Your task to perform on an android device: change the clock display to analog Image 0: 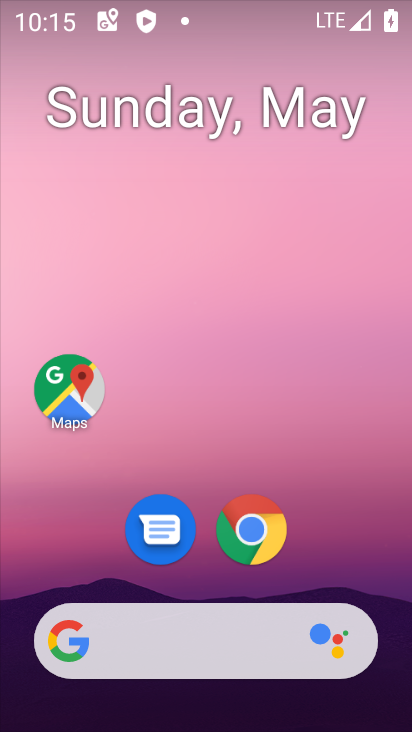
Step 0: drag from (344, 559) to (318, 52)
Your task to perform on an android device: change the clock display to analog Image 1: 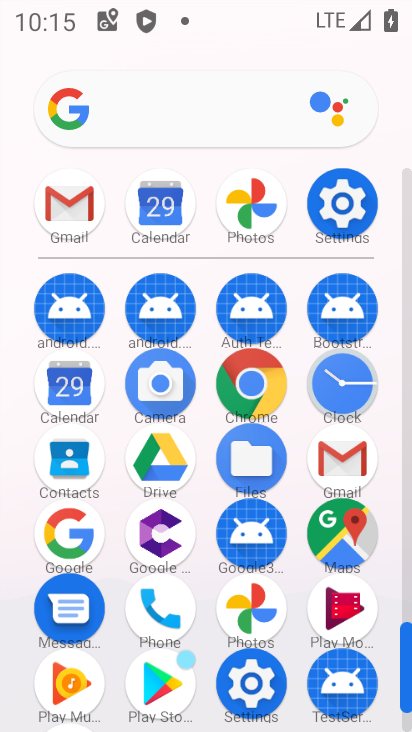
Step 1: click (356, 381)
Your task to perform on an android device: change the clock display to analog Image 2: 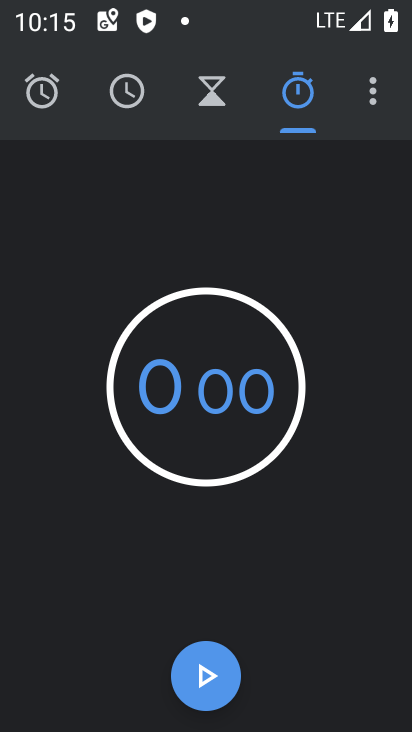
Step 2: click (377, 82)
Your task to perform on an android device: change the clock display to analog Image 3: 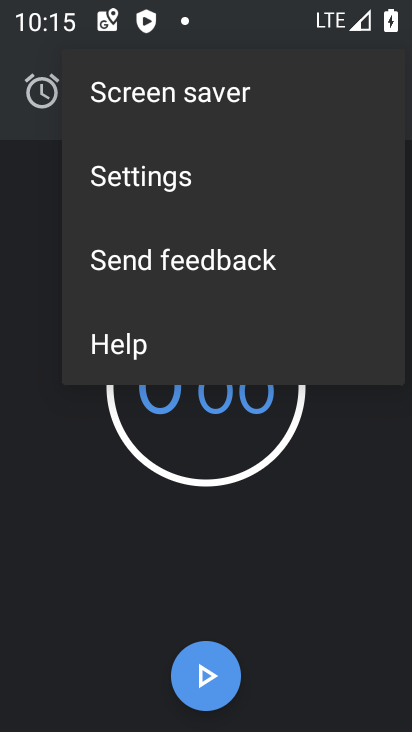
Step 3: click (199, 183)
Your task to perform on an android device: change the clock display to analog Image 4: 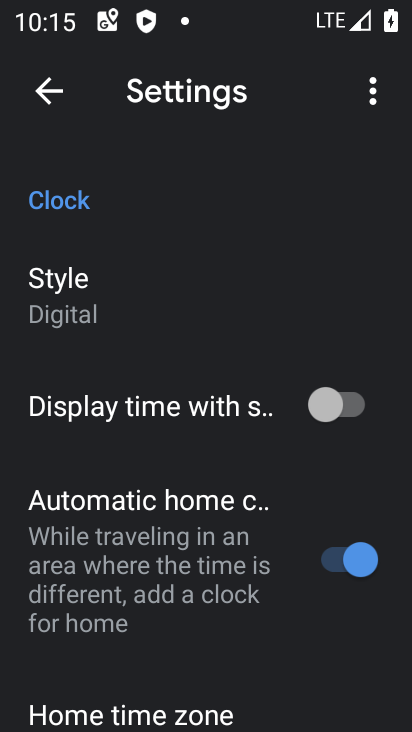
Step 4: click (148, 317)
Your task to perform on an android device: change the clock display to analog Image 5: 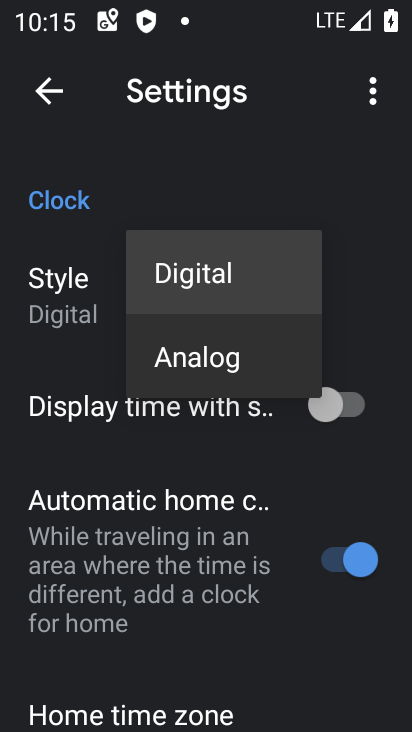
Step 5: click (252, 357)
Your task to perform on an android device: change the clock display to analog Image 6: 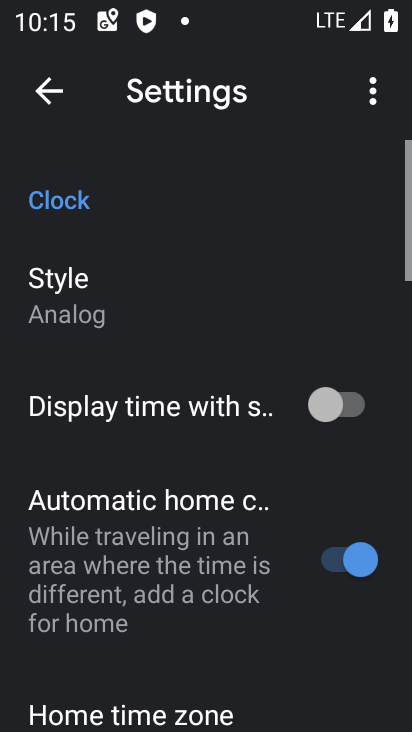
Step 6: task complete